Your task to perform on an android device: What time is it? Image 0: 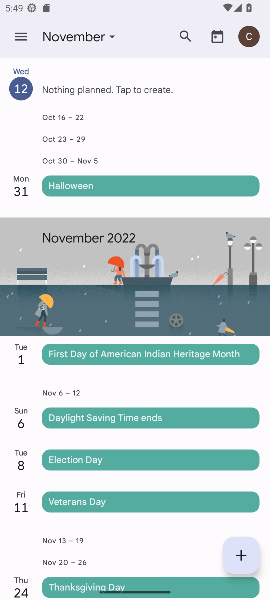
Step 0: press home button
Your task to perform on an android device: What time is it? Image 1: 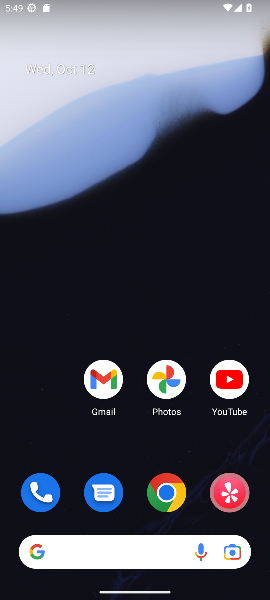
Step 1: click (155, 490)
Your task to perform on an android device: What time is it? Image 2: 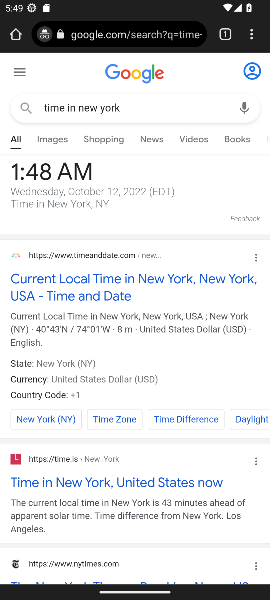
Step 2: click (161, 105)
Your task to perform on an android device: What time is it? Image 3: 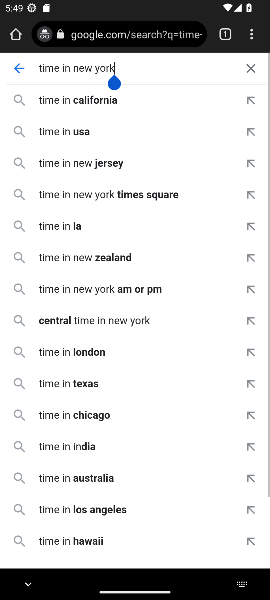
Step 3: click (245, 63)
Your task to perform on an android device: What time is it? Image 4: 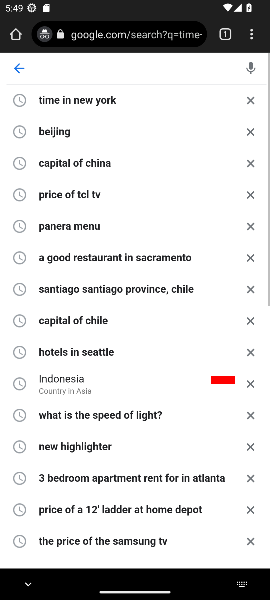
Step 4: type "What time is it?"
Your task to perform on an android device: What time is it? Image 5: 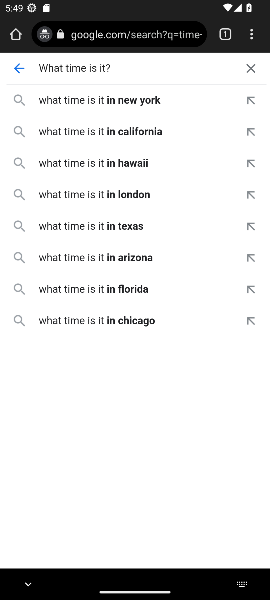
Step 5: task complete